Your task to perform on an android device: Open settings on Google Maps Image 0: 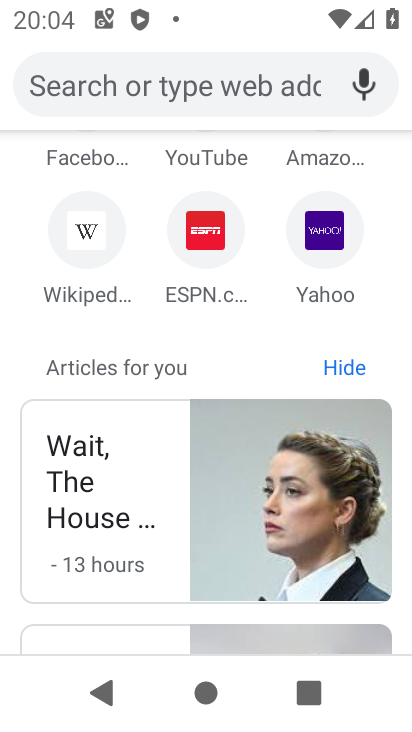
Step 0: drag from (189, 598) to (200, 330)
Your task to perform on an android device: Open settings on Google Maps Image 1: 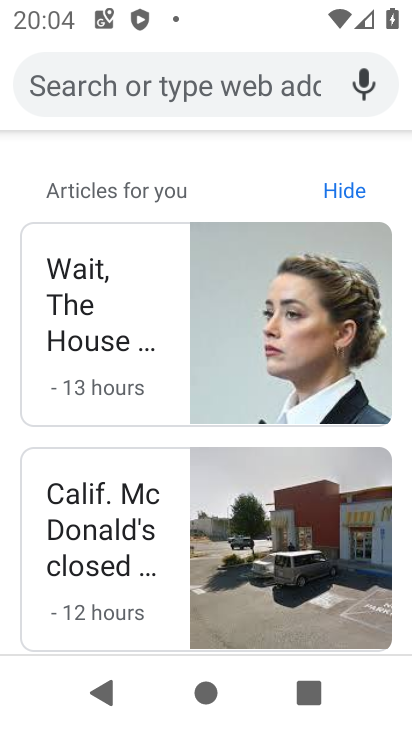
Step 1: drag from (251, 198) to (248, 706)
Your task to perform on an android device: Open settings on Google Maps Image 2: 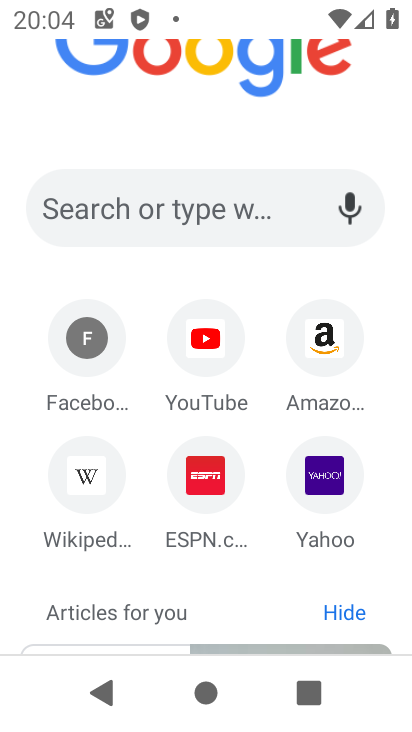
Step 2: press home button
Your task to perform on an android device: Open settings on Google Maps Image 3: 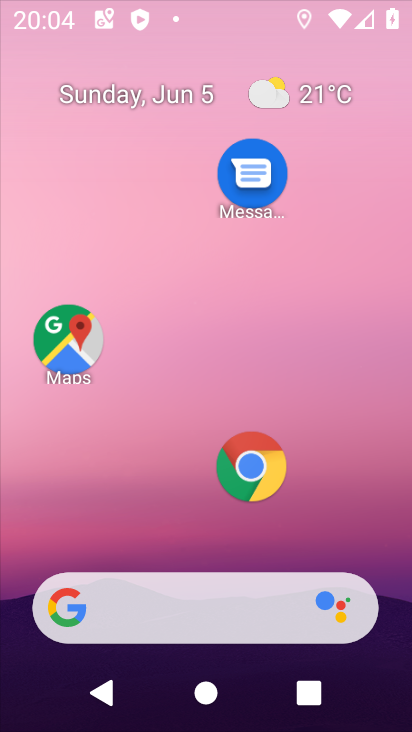
Step 3: drag from (220, 564) to (330, 176)
Your task to perform on an android device: Open settings on Google Maps Image 4: 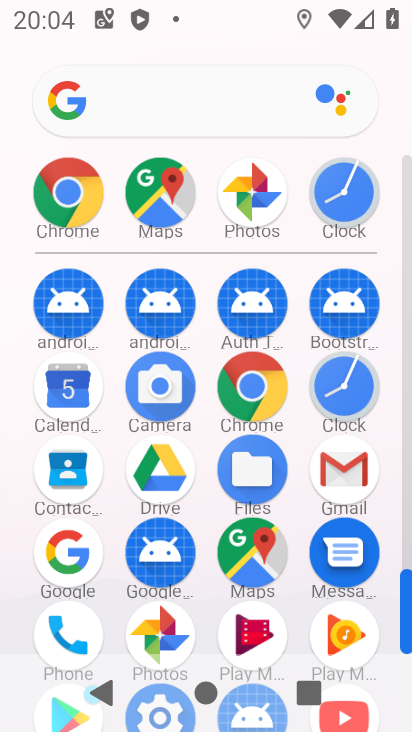
Step 4: click (156, 188)
Your task to perform on an android device: Open settings on Google Maps Image 5: 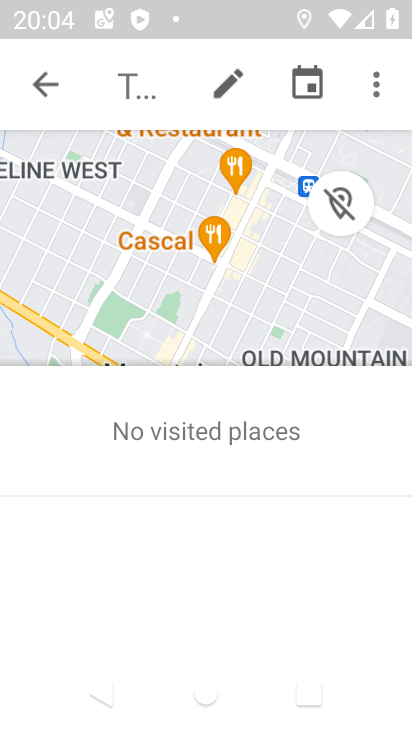
Step 5: click (375, 70)
Your task to perform on an android device: Open settings on Google Maps Image 6: 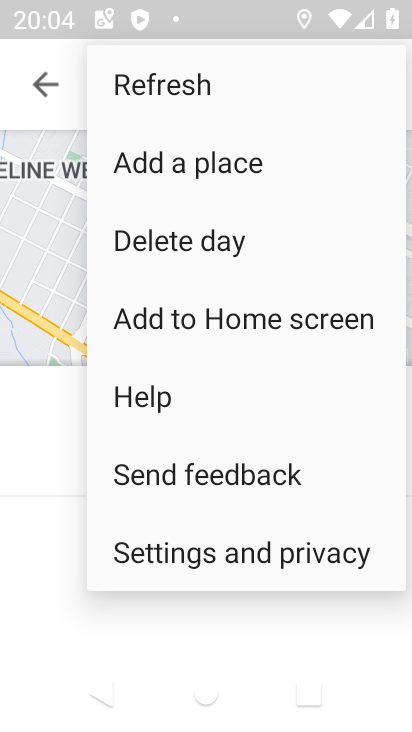
Step 6: drag from (216, 490) to (251, 14)
Your task to perform on an android device: Open settings on Google Maps Image 7: 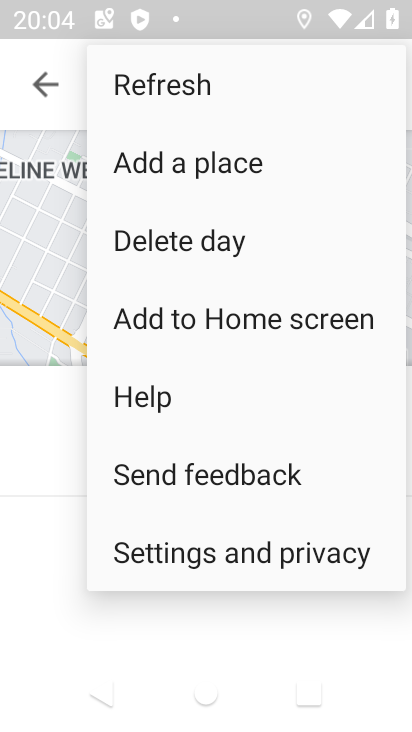
Step 7: click (48, 80)
Your task to perform on an android device: Open settings on Google Maps Image 8: 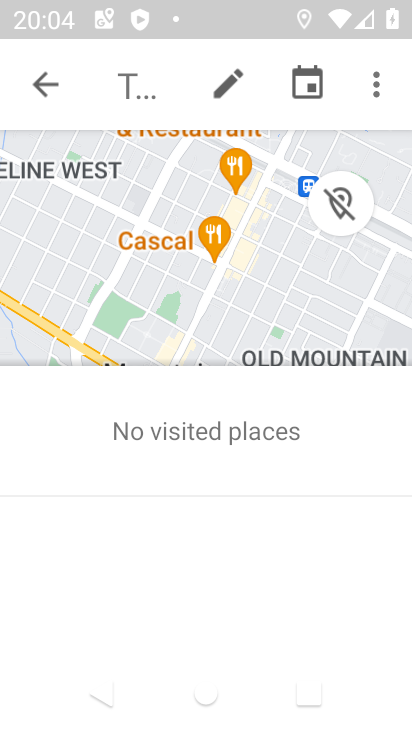
Step 8: click (46, 77)
Your task to perform on an android device: Open settings on Google Maps Image 9: 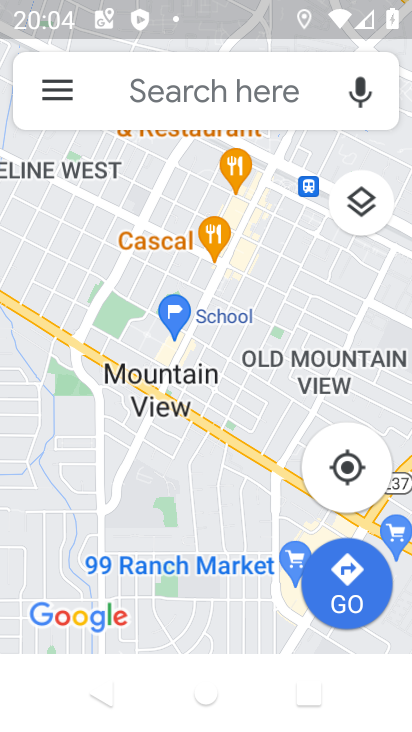
Step 9: click (44, 73)
Your task to perform on an android device: Open settings on Google Maps Image 10: 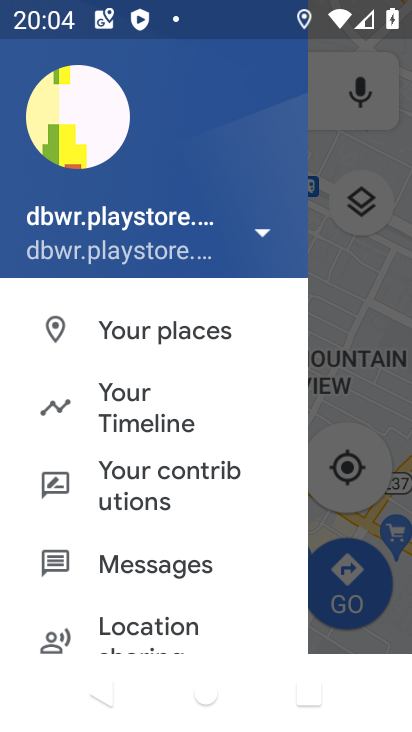
Step 10: drag from (140, 608) to (255, 84)
Your task to perform on an android device: Open settings on Google Maps Image 11: 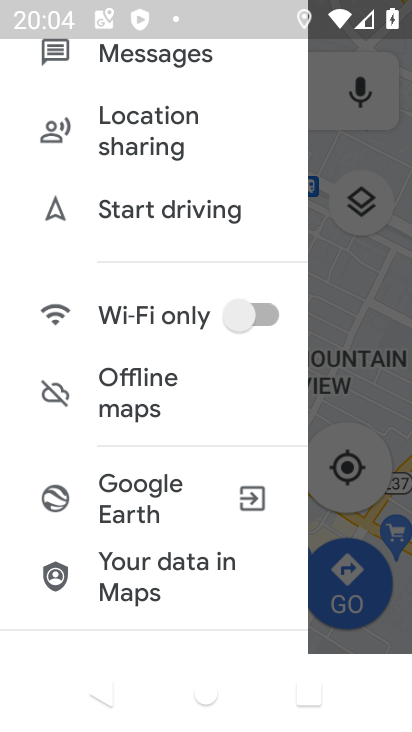
Step 11: drag from (138, 594) to (249, 20)
Your task to perform on an android device: Open settings on Google Maps Image 12: 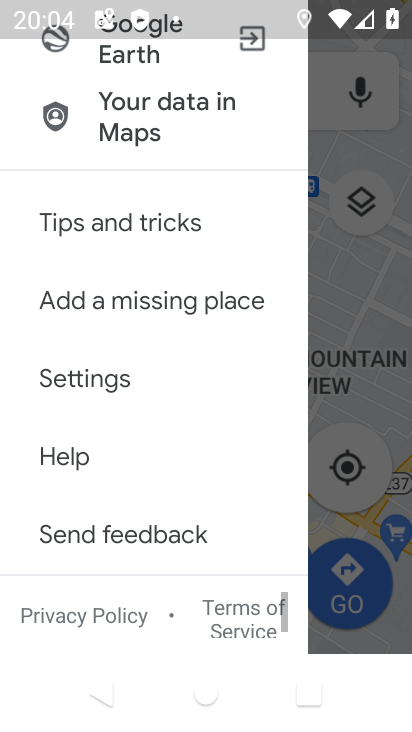
Step 12: click (153, 387)
Your task to perform on an android device: Open settings on Google Maps Image 13: 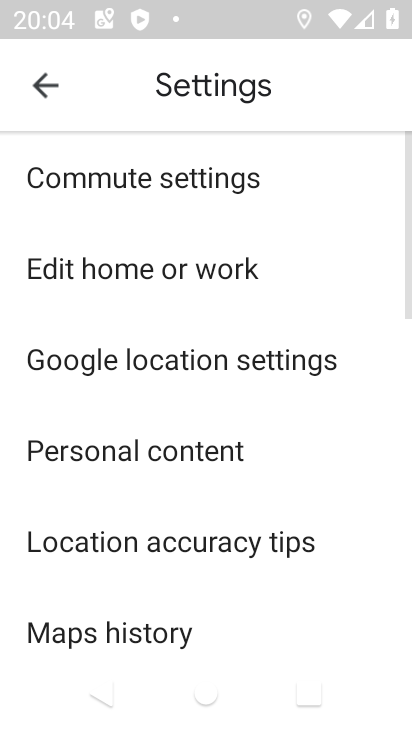
Step 13: task complete